Your task to perform on an android device: clear all cookies in the chrome app Image 0: 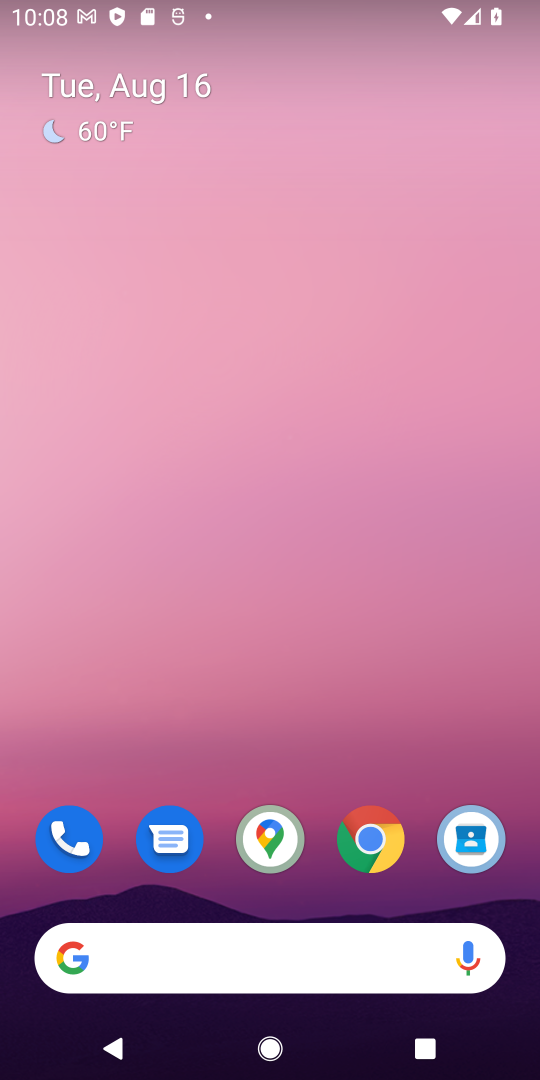
Step 0: click (358, 836)
Your task to perform on an android device: clear all cookies in the chrome app Image 1: 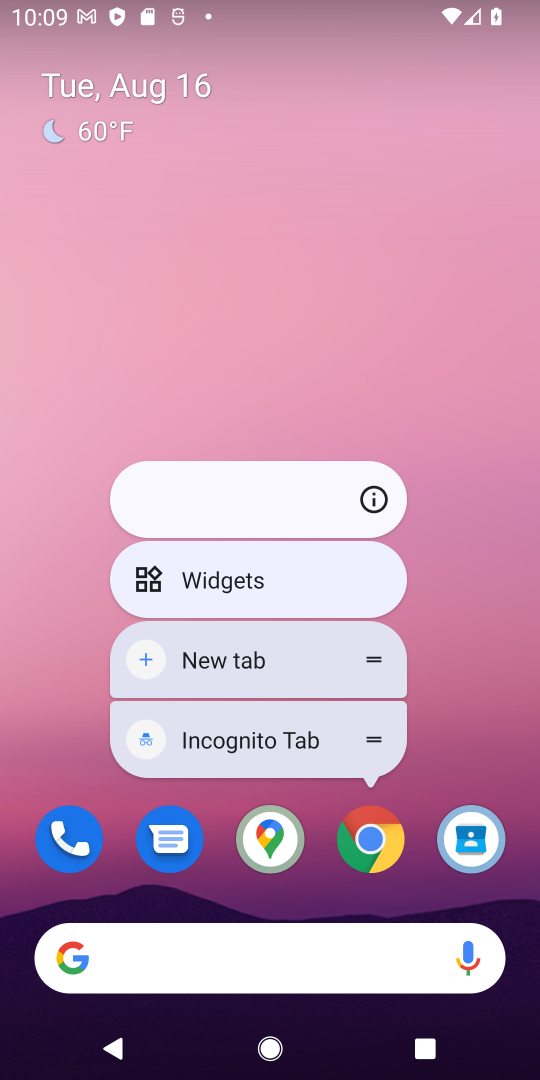
Step 1: click (368, 846)
Your task to perform on an android device: clear all cookies in the chrome app Image 2: 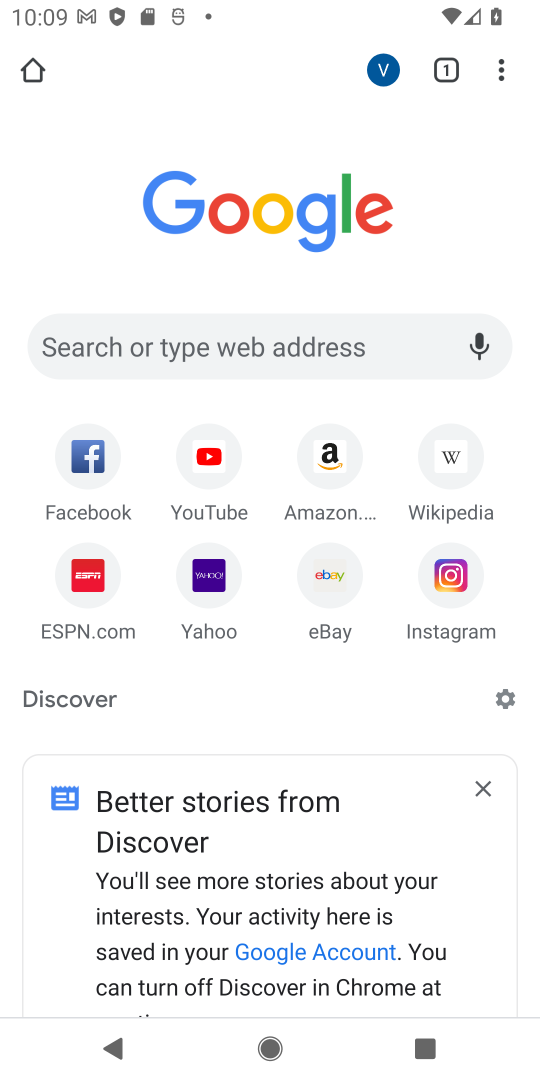
Step 2: click (500, 58)
Your task to perform on an android device: clear all cookies in the chrome app Image 3: 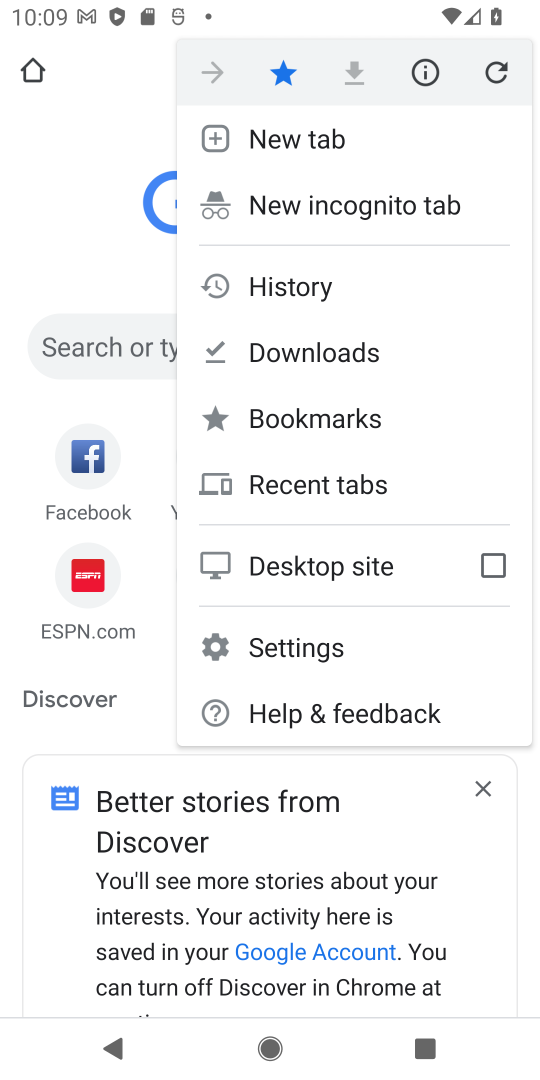
Step 3: click (306, 291)
Your task to perform on an android device: clear all cookies in the chrome app Image 4: 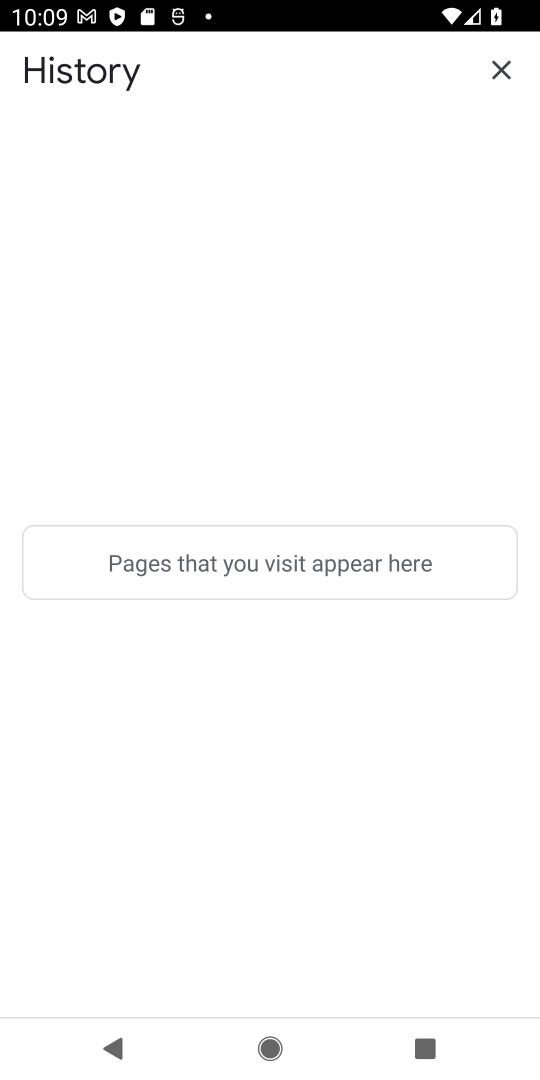
Step 4: task complete